Your task to perform on an android device: turn off airplane mode Image 0: 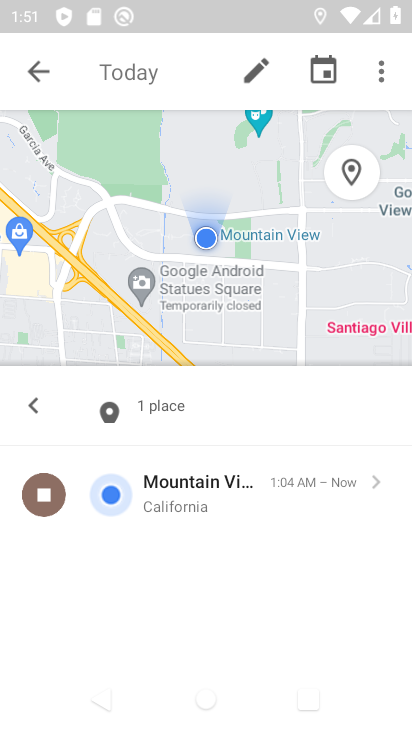
Step 0: click (33, 76)
Your task to perform on an android device: turn off airplane mode Image 1: 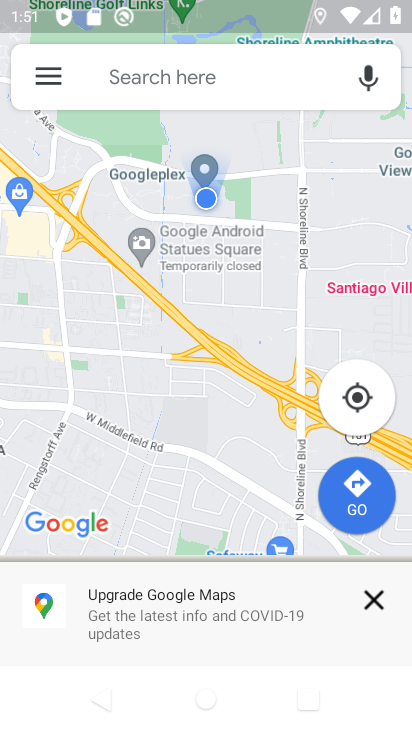
Step 1: press back button
Your task to perform on an android device: turn off airplane mode Image 2: 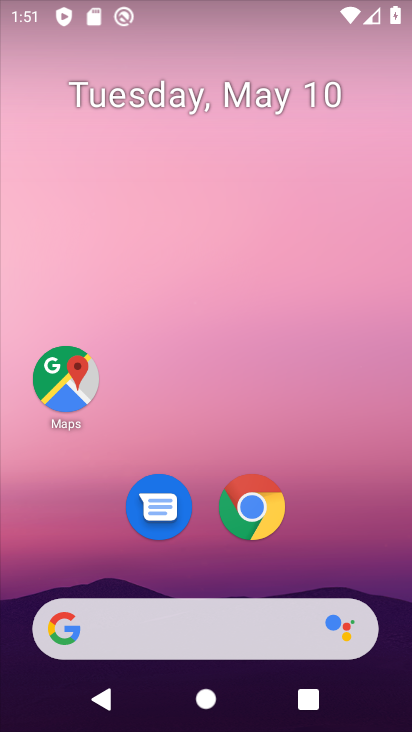
Step 2: drag from (276, 392) to (201, 134)
Your task to perform on an android device: turn off airplane mode Image 3: 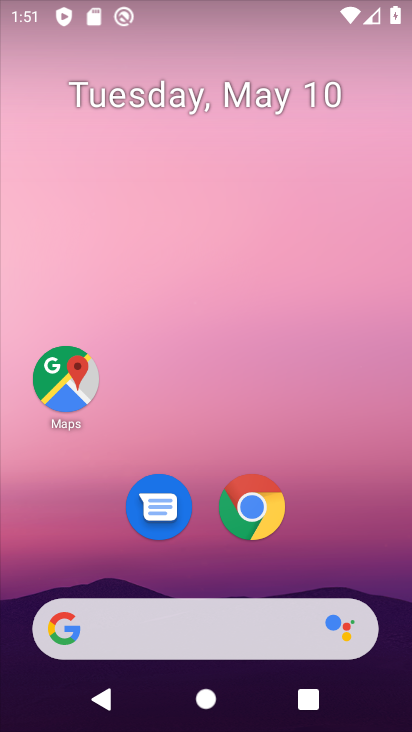
Step 3: drag from (210, 406) to (115, 24)
Your task to perform on an android device: turn off airplane mode Image 4: 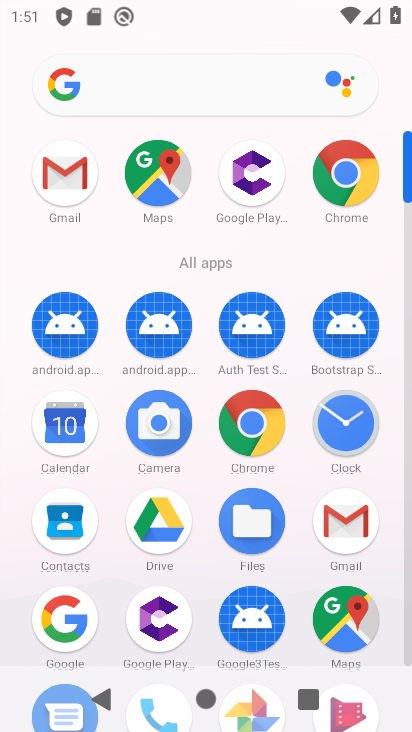
Step 4: drag from (271, 457) to (178, 35)
Your task to perform on an android device: turn off airplane mode Image 5: 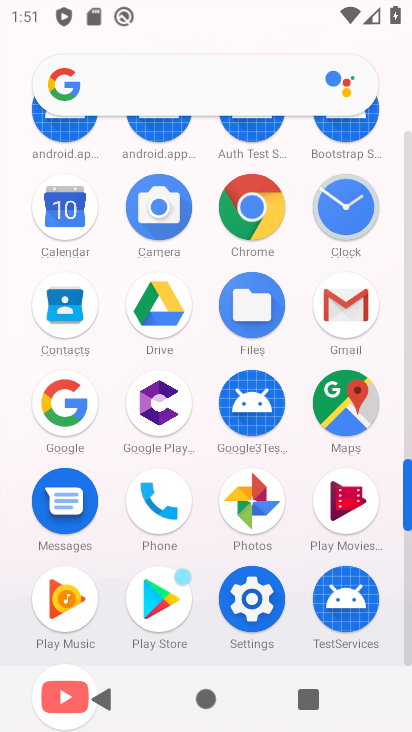
Step 5: drag from (215, 354) to (213, 176)
Your task to perform on an android device: turn off airplane mode Image 6: 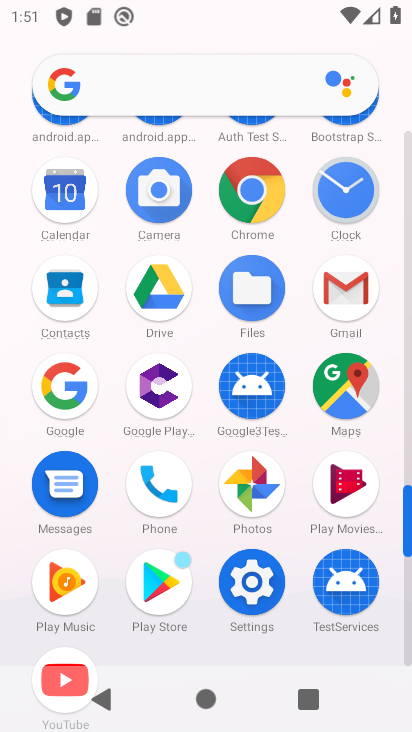
Step 6: click (260, 585)
Your task to perform on an android device: turn off airplane mode Image 7: 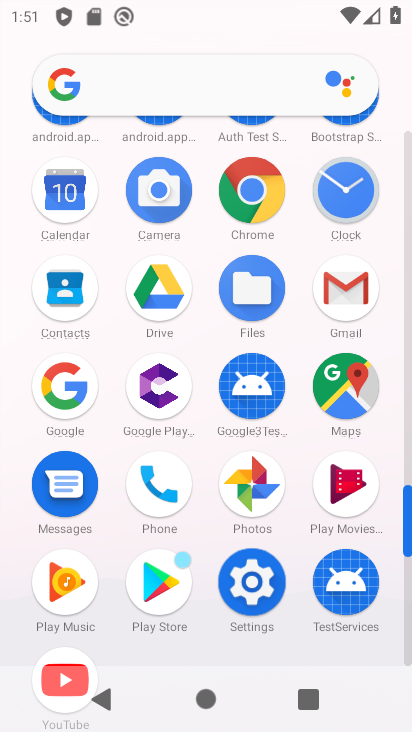
Step 7: click (260, 585)
Your task to perform on an android device: turn off airplane mode Image 8: 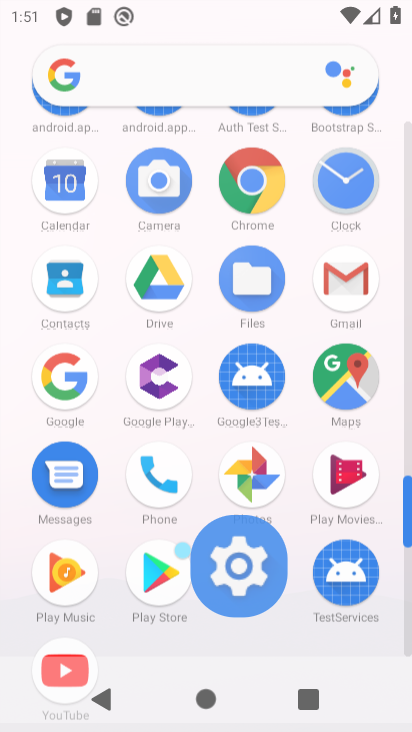
Step 8: click (259, 584)
Your task to perform on an android device: turn off airplane mode Image 9: 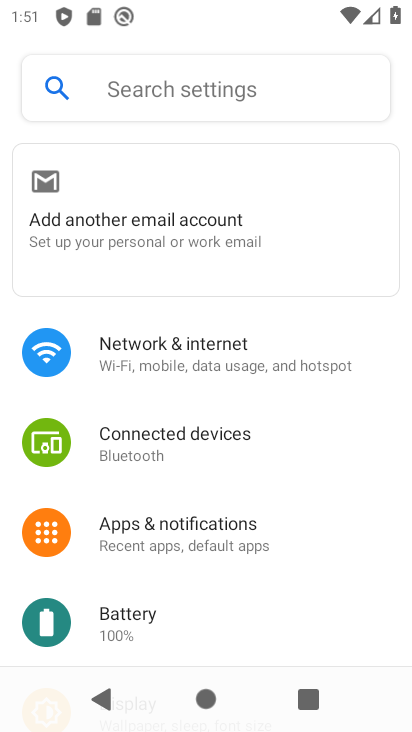
Step 9: click (174, 351)
Your task to perform on an android device: turn off airplane mode Image 10: 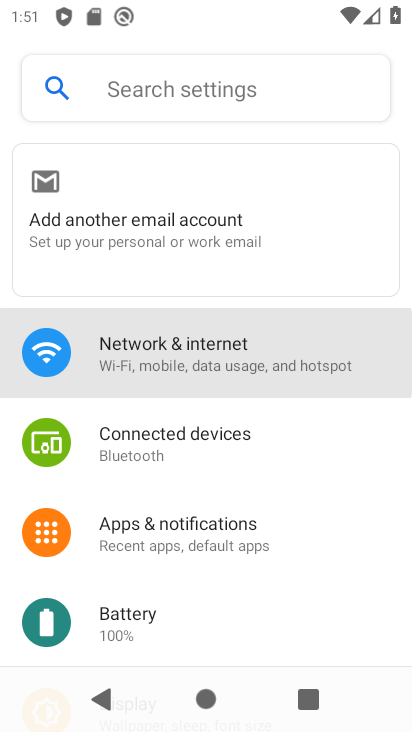
Step 10: click (175, 351)
Your task to perform on an android device: turn off airplane mode Image 11: 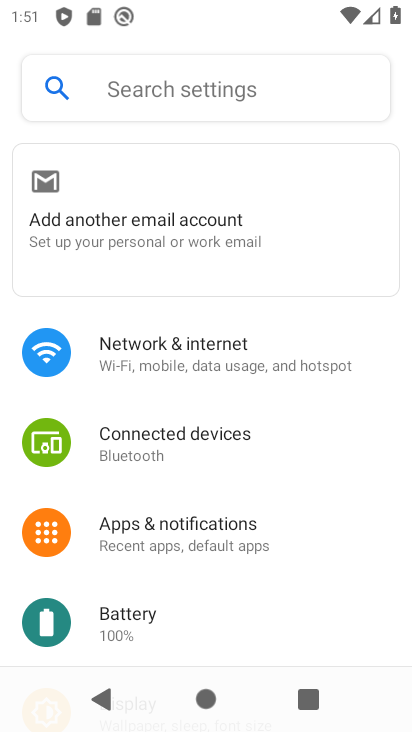
Step 11: click (179, 350)
Your task to perform on an android device: turn off airplane mode Image 12: 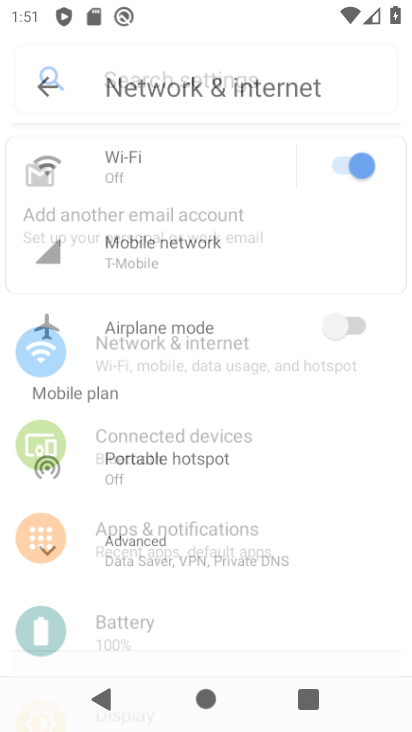
Step 12: click (179, 350)
Your task to perform on an android device: turn off airplane mode Image 13: 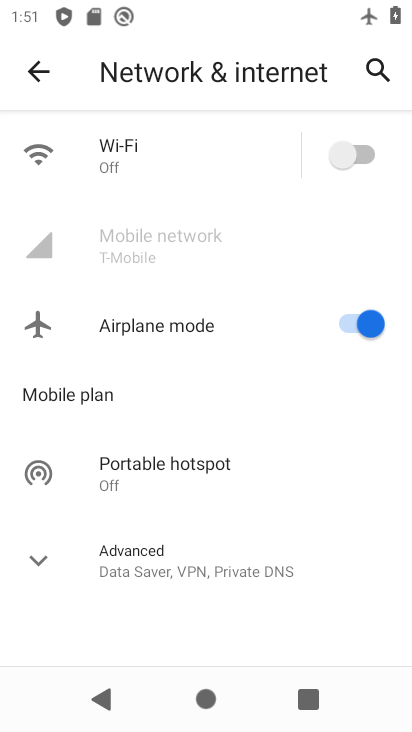
Step 13: click (369, 318)
Your task to perform on an android device: turn off airplane mode Image 14: 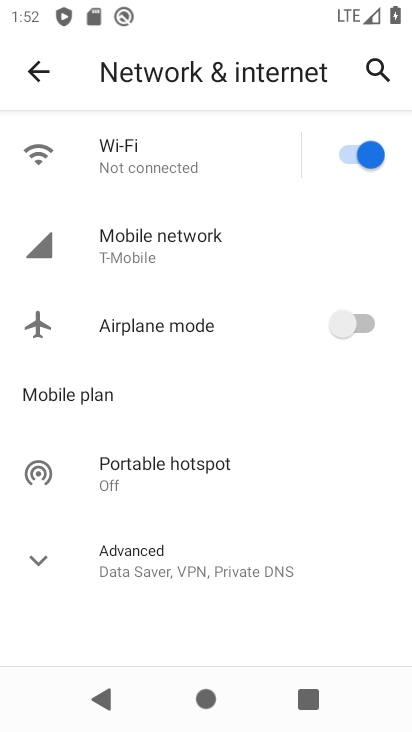
Step 14: task complete